Your task to perform on an android device: Empty the shopping cart on costco.com. Image 0: 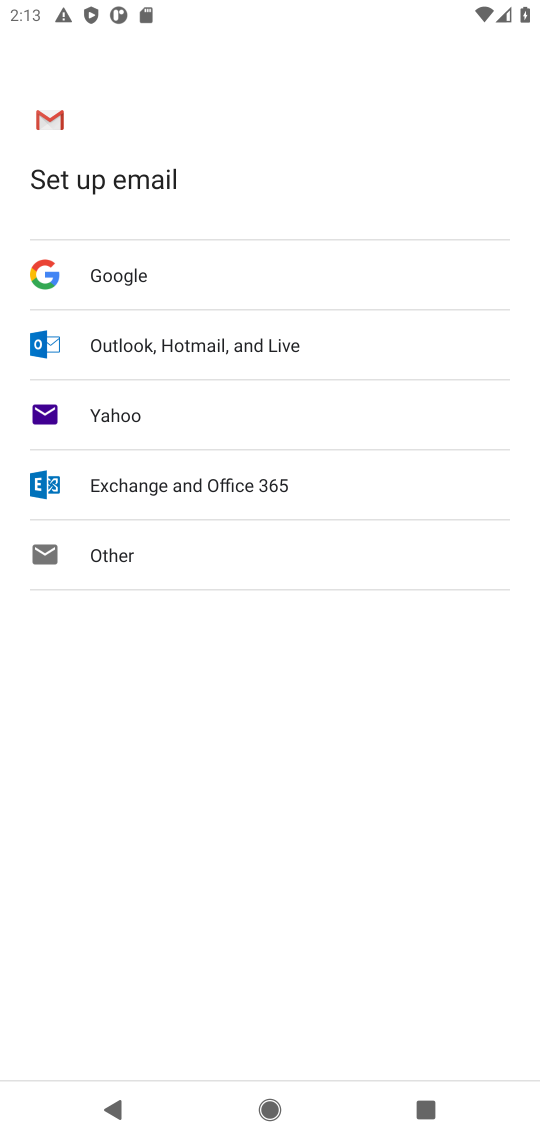
Step 0: press home button
Your task to perform on an android device: Empty the shopping cart on costco.com. Image 1: 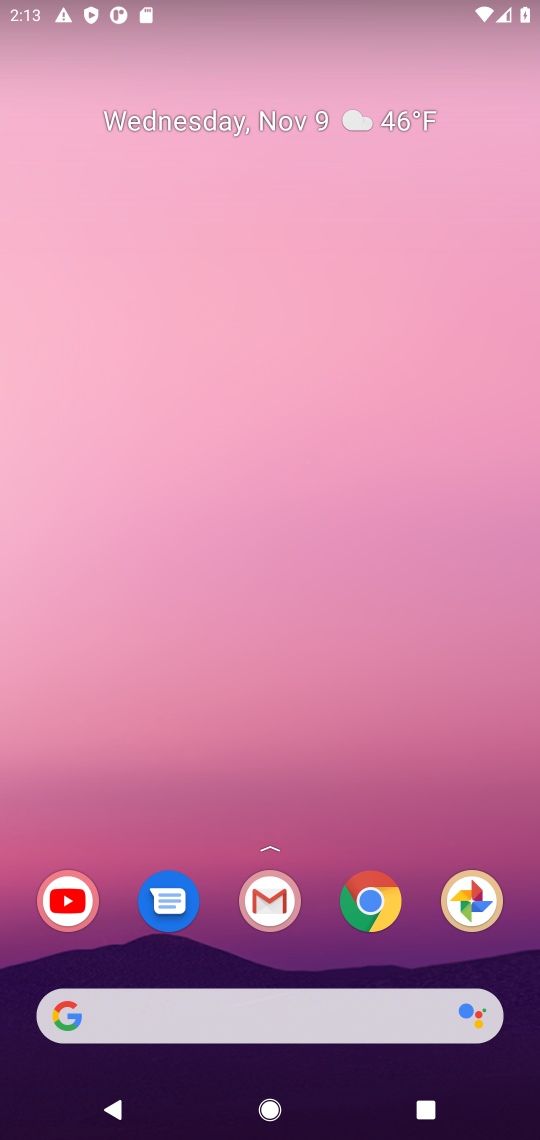
Step 1: click (374, 917)
Your task to perform on an android device: Empty the shopping cart on costco.com. Image 2: 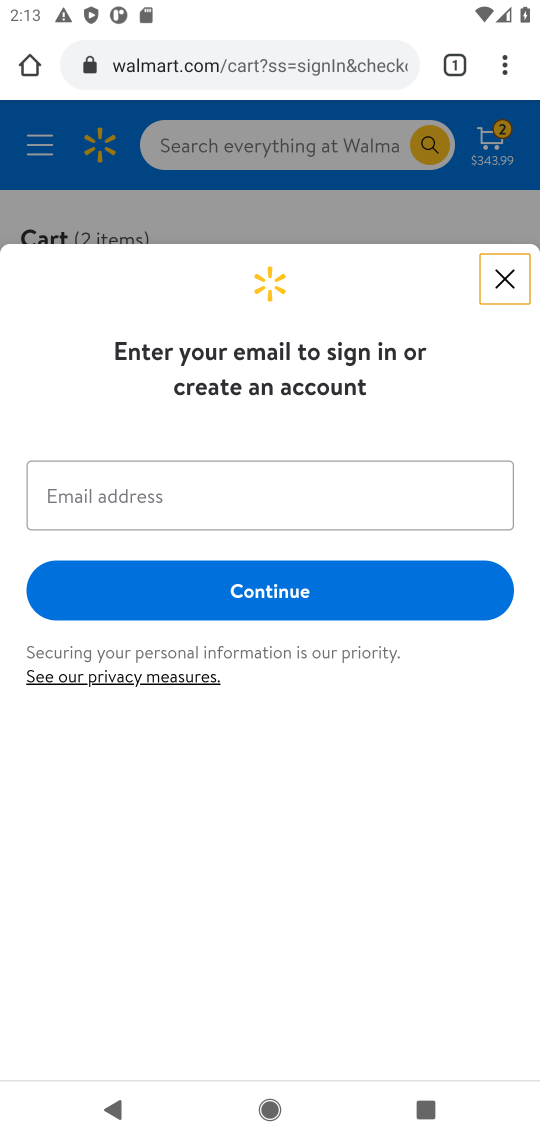
Step 2: click (355, 33)
Your task to perform on an android device: Empty the shopping cart on costco.com. Image 3: 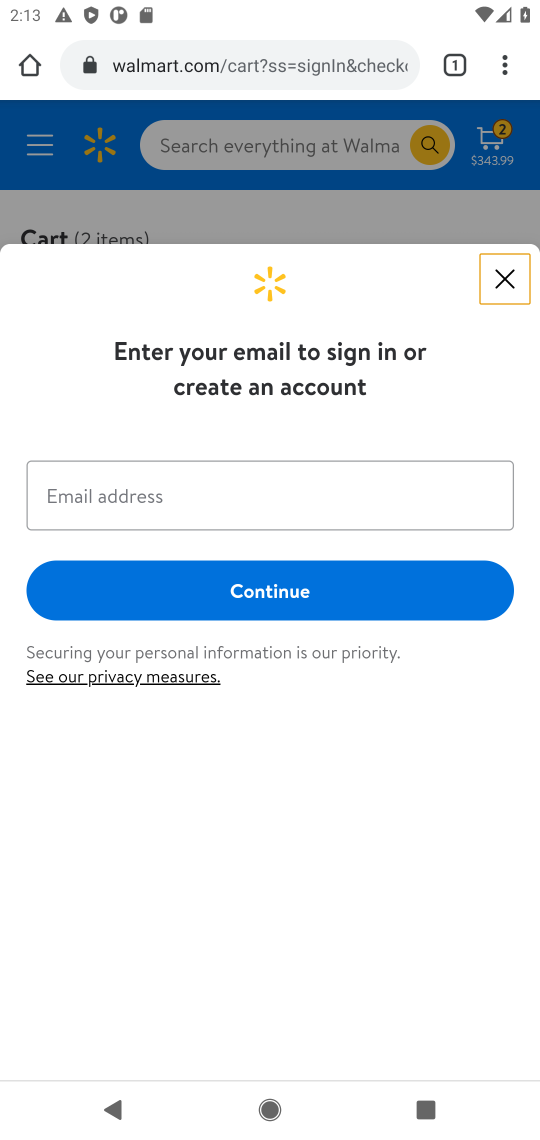
Step 3: click (367, 69)
Your task to perform on an android device: Empty the shopping cart on costco.com. Image 4: 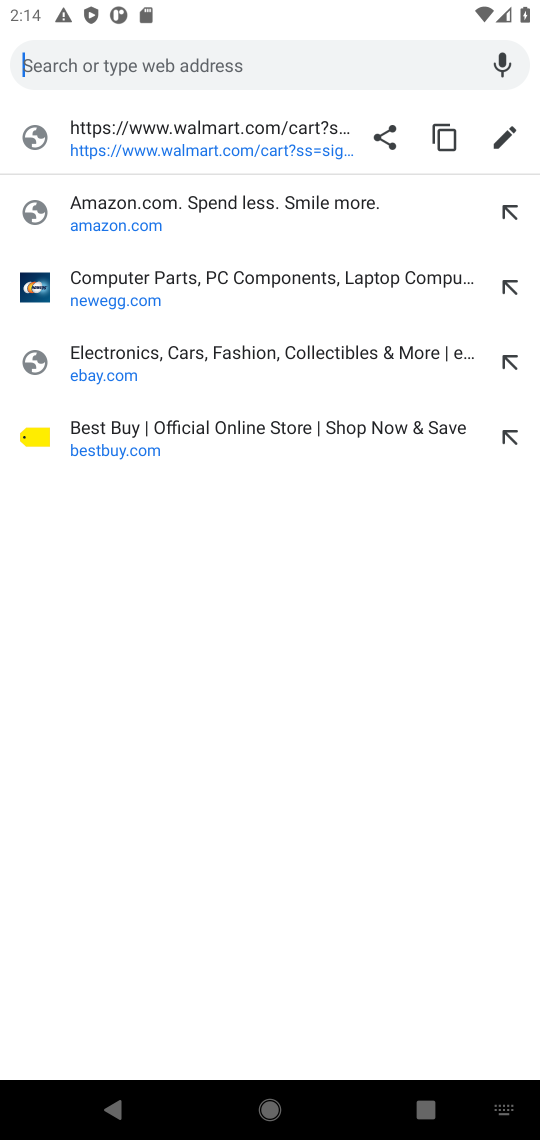
Step 4: type "costco.com."
Your task to perform on an android device: Empty the shopping cart on costco.com. Image 5: 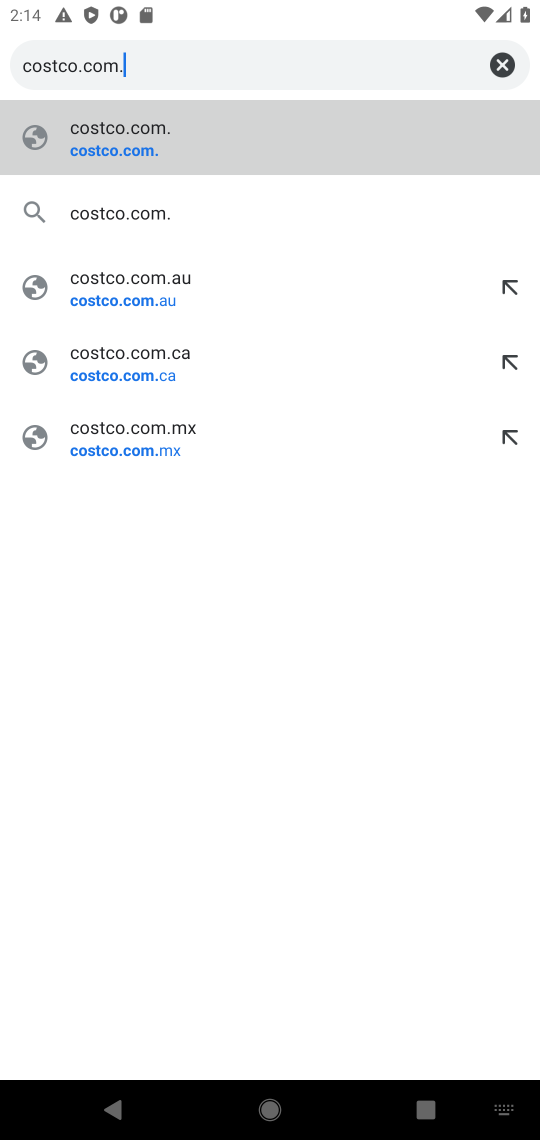
Step 5: click (148, 142)
Your task to perform on an android device: Empty the shopping cart on costco.com. Image 6: 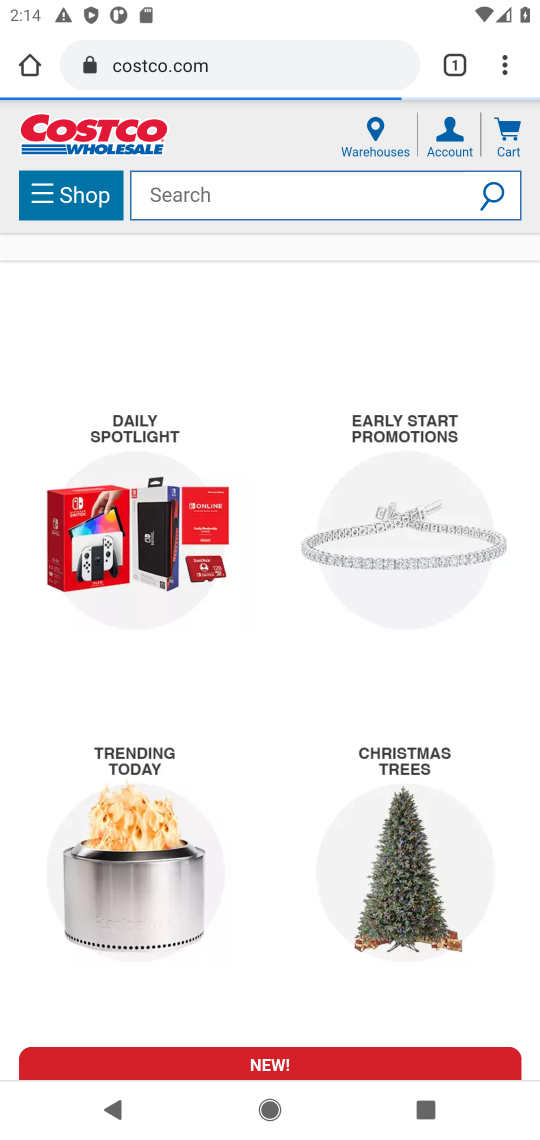
Step 6: click (507, 132)
Your task to perform on an android device: Empty the shopping cart on costco.com. Image 7: 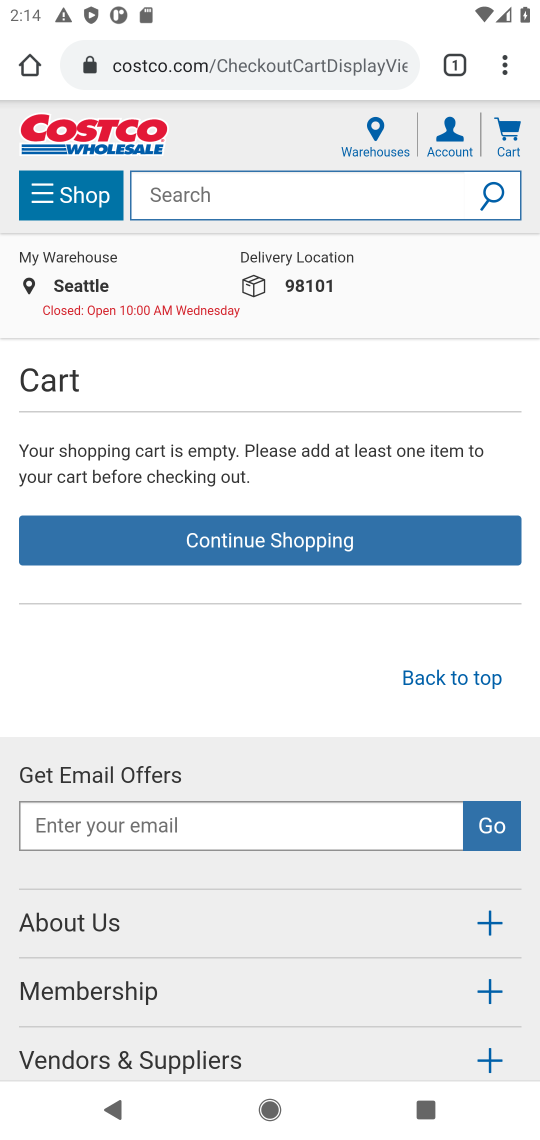
Step 7: task complete